Your task to perform on an android device: delete a single message in the gmail app Image 0: 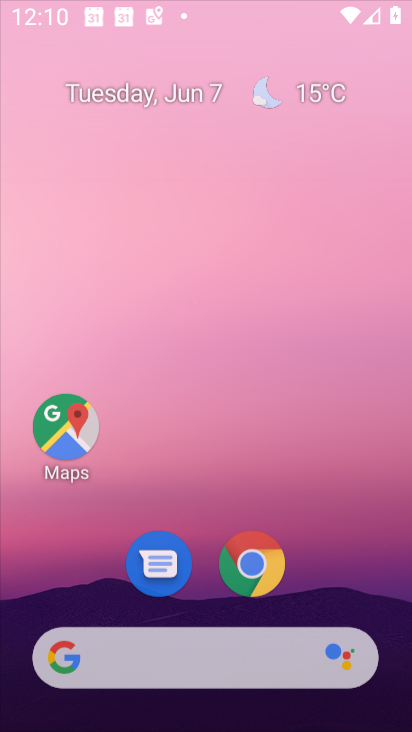
Step 0: press home button
Your task to perform on an android device: delete a single message in the gmail app Image 1: 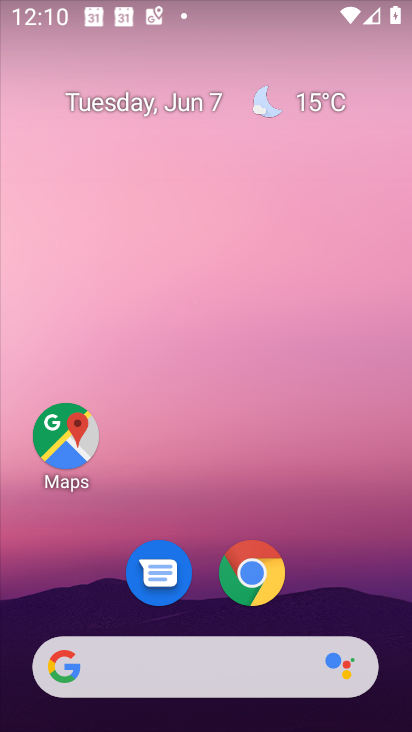
Step 1: drag from (239, 607) to (272, 6)
Your task to perform on an android device: delete a single message in the gmail app Image 2: 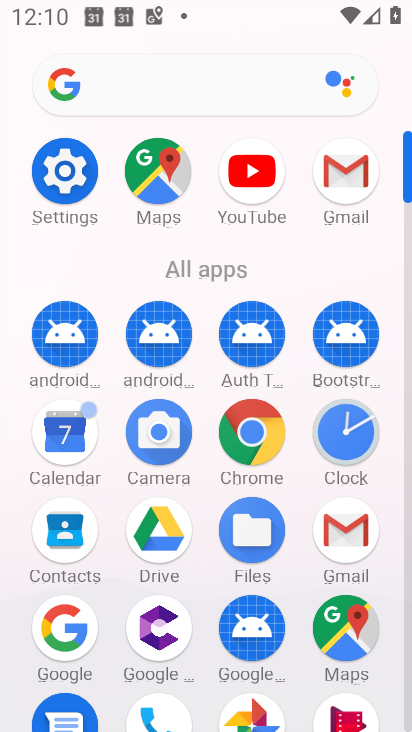
Step 2: click (358, 203)
Your task to perform on an android device: delete a single message in the gmail app Image 3: 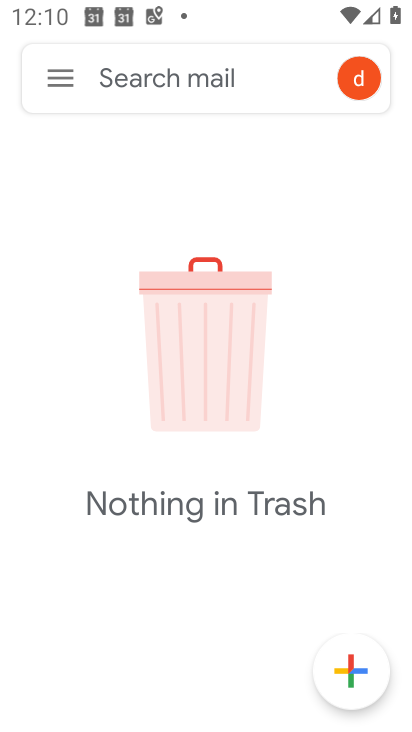
Step 3: click (67, 79)
Your task to perform on an android device: delete a single message in the gmail app Image 4: 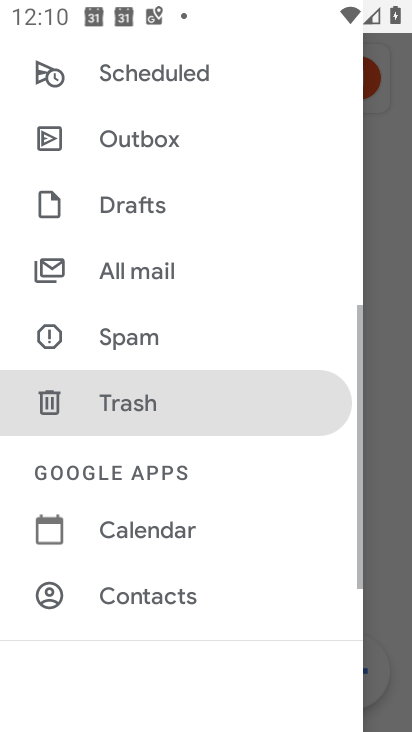
Step 4: click (119, 270)
Your task to perform on an android device: delete a single message in the gmail app Image 5: 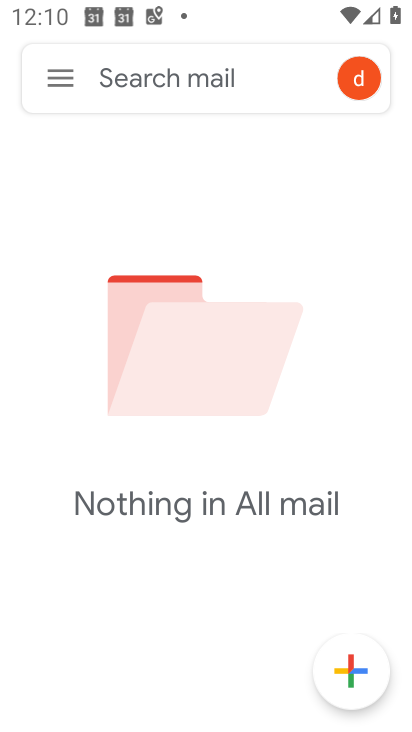
Step 5: task complete